Your task to perform on an android device: Go to Reddit.com Image 0: 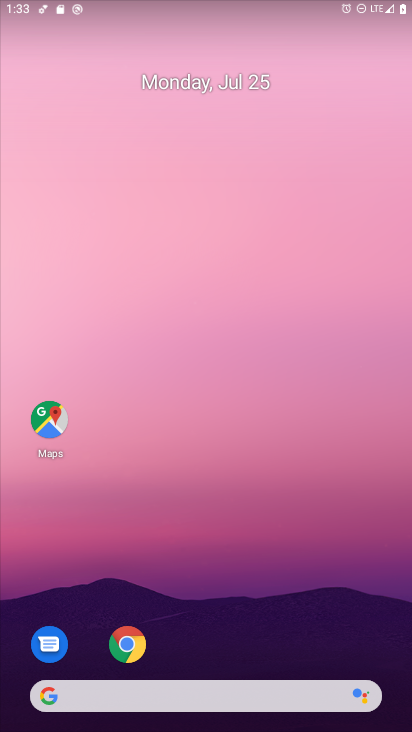
Step 0: click (126, 626)
Your task to perform on an android device: Go to Reddit.com Image 1: 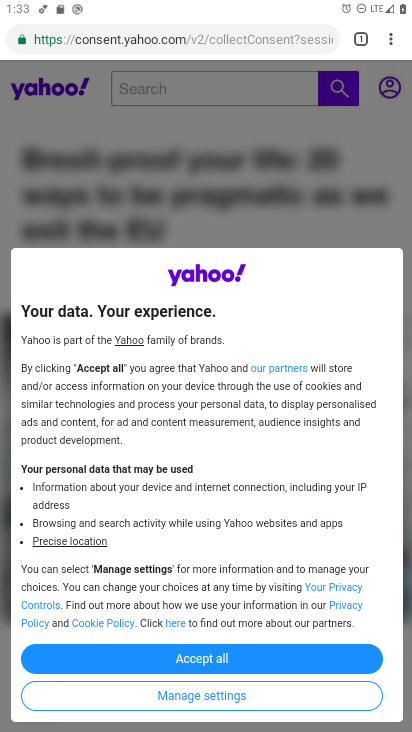
Step 1: click (213, 36)
Your task to perform on an android device: Go to Reddit.com Image 2: 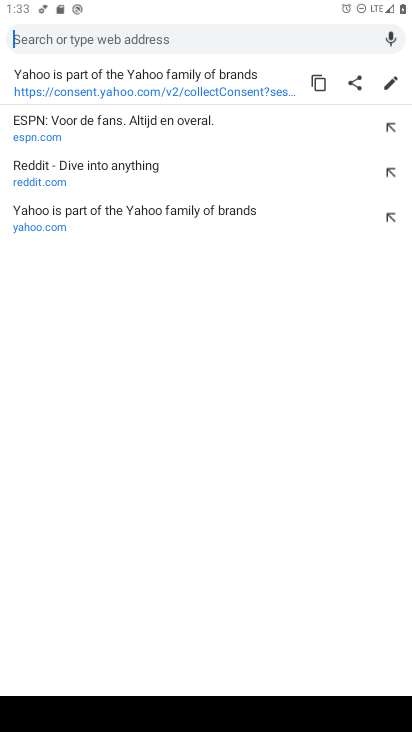
Step 2: type "Reddit.com"
Your task to perform on an android device: Go to Reddit.com Image 3: 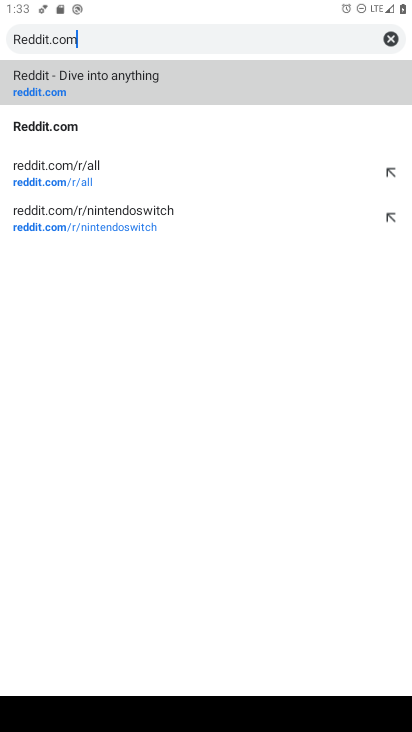
Step 3: click (163, 76)
Your task to perform on an android device: Go to Reddit.com Image 4: 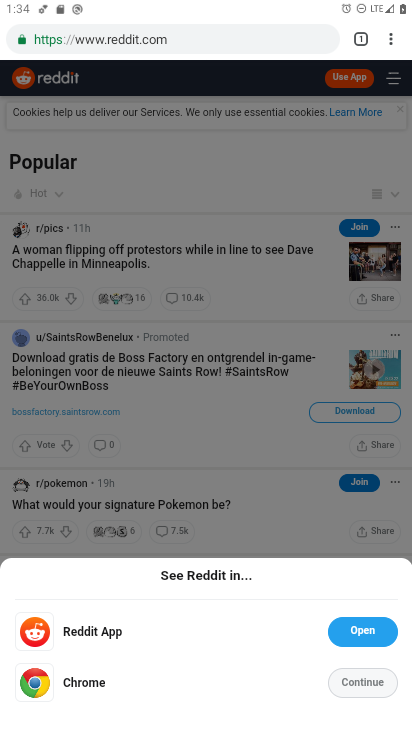
Step 4: task complete